Your task to perform on an android device: Open Maps and search for coffee Image 0: 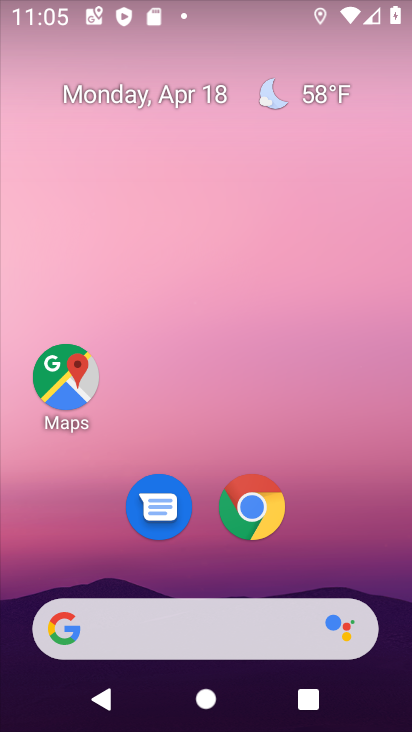
Step 0: click (74, 381)
Your task to perform on an android device: Open Maps and search for coffee Image 1: 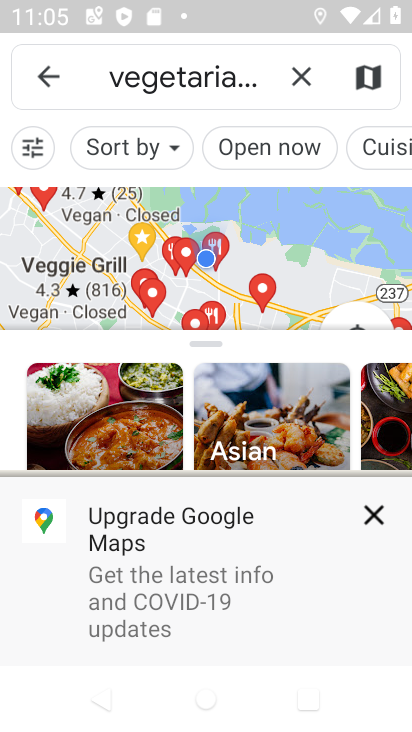
Step 1: click (303, 69)
Your task to perform on an android device: Open Maps and search for coffee Image 2: 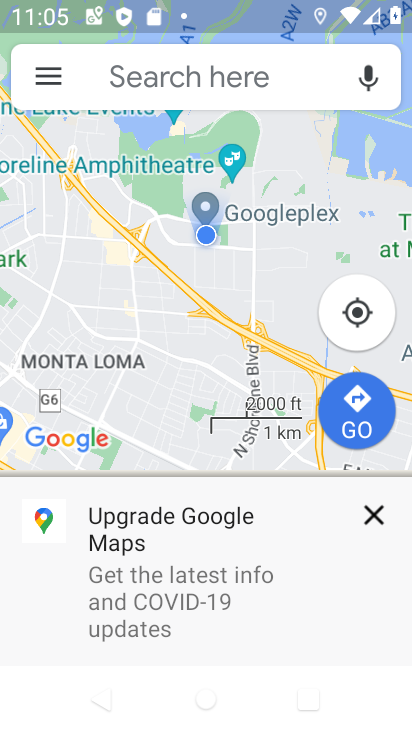
Step 2: click (167, 74)
Your task to perform on an android device: Open Maps and search for coffee Image 3: 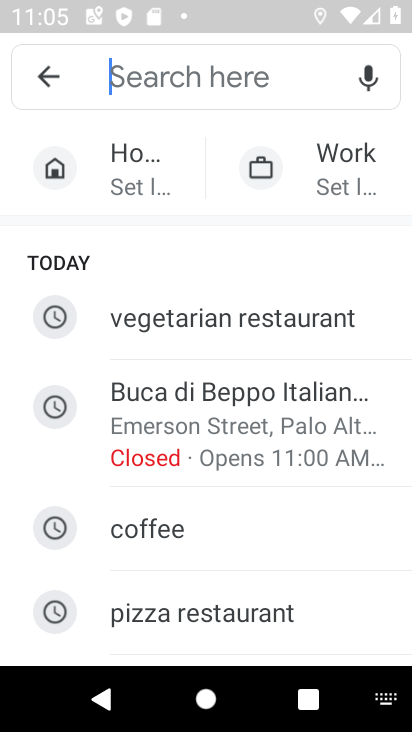
Step 3: type "coffee"
Your task to perform on an android device: Open Maps and search for coffee Image 4: 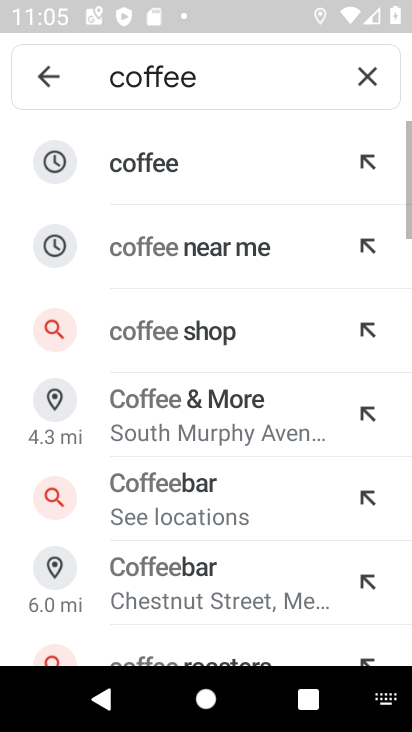
Step 4: click (174, 141)
Your task to perform on an android device: Open Maps and search for coffee Image 5: 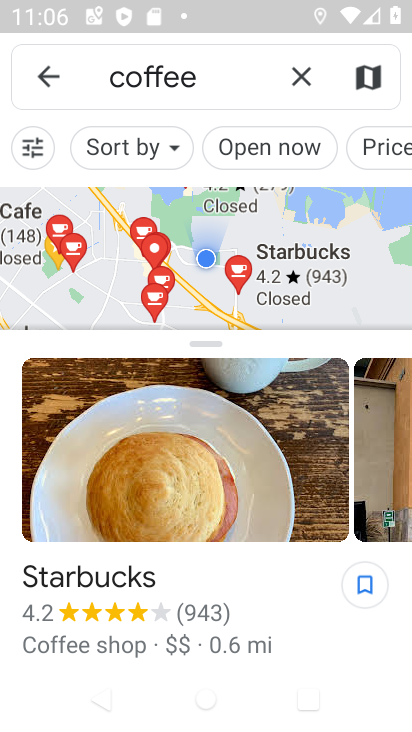
Step 5: task complete